Your task to perform on an android device: Open Maps and search for coffee Image 0: 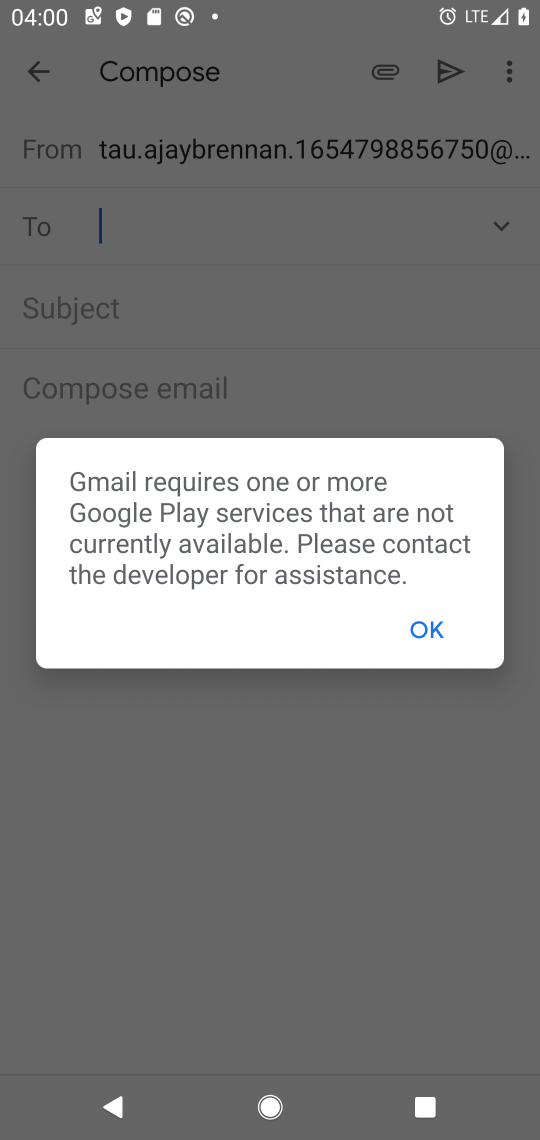
Step 0: press back button
Your task to perform on an android device: Open Maps and search for coffee Image 1: 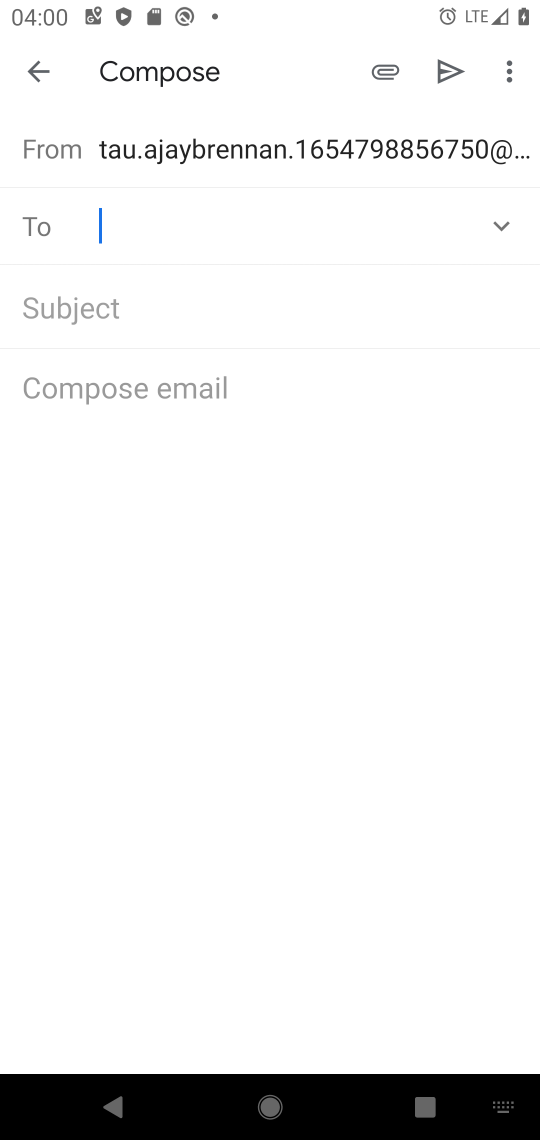
Step 1: press home button
Your task to perform on an android device: Open Maps and search for coffee Image 2: 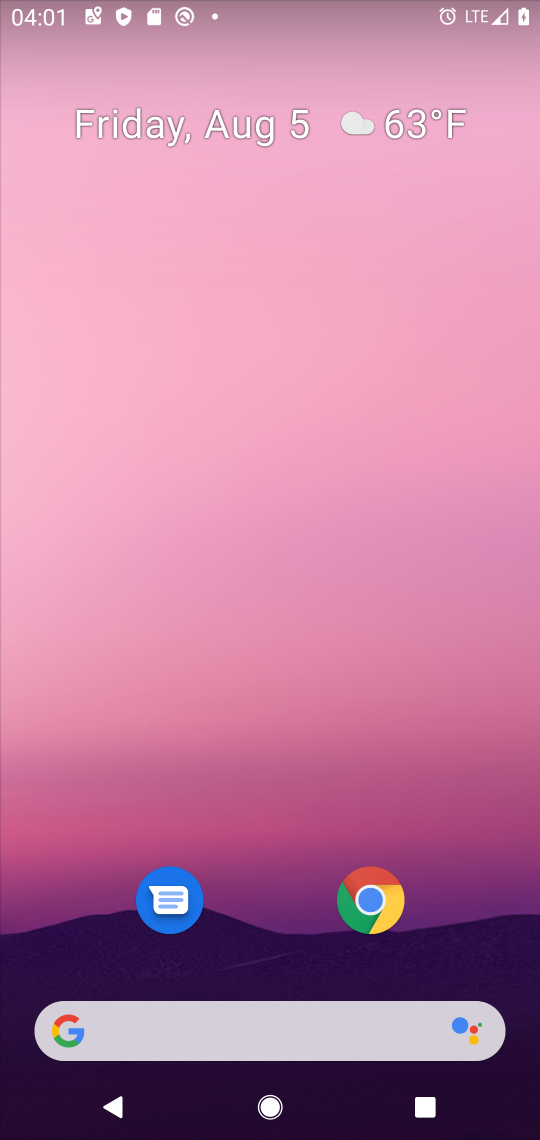
Step 2: drag from (142, 817) to (249, 1)
Your task to perform on an android device: Open Maps and search for coffee Image 3: 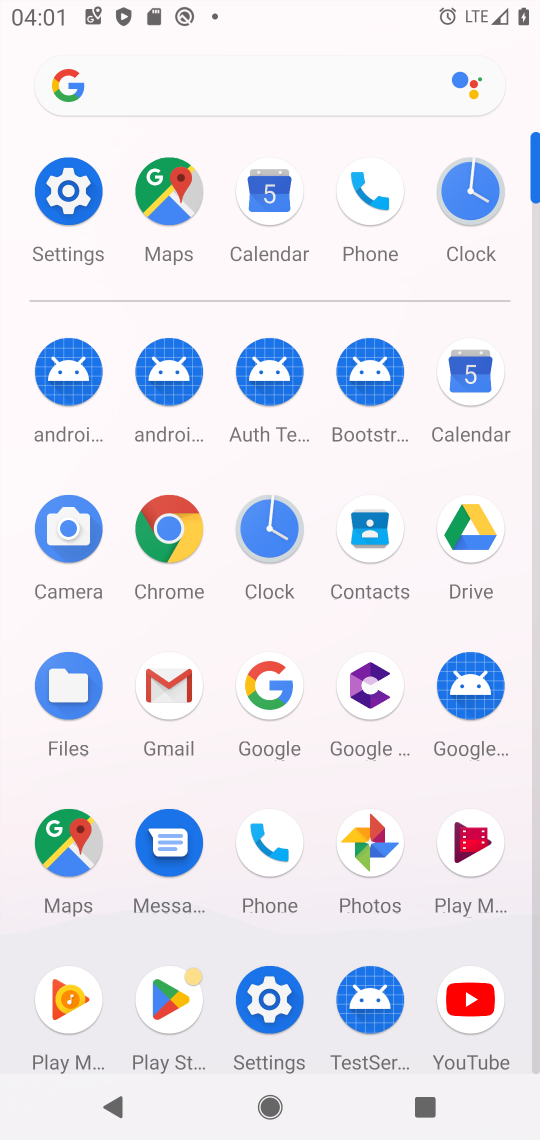
Step 3: click (159, 212)
Your task to perform on an android device: Open Maps and search for coffee Image 4: 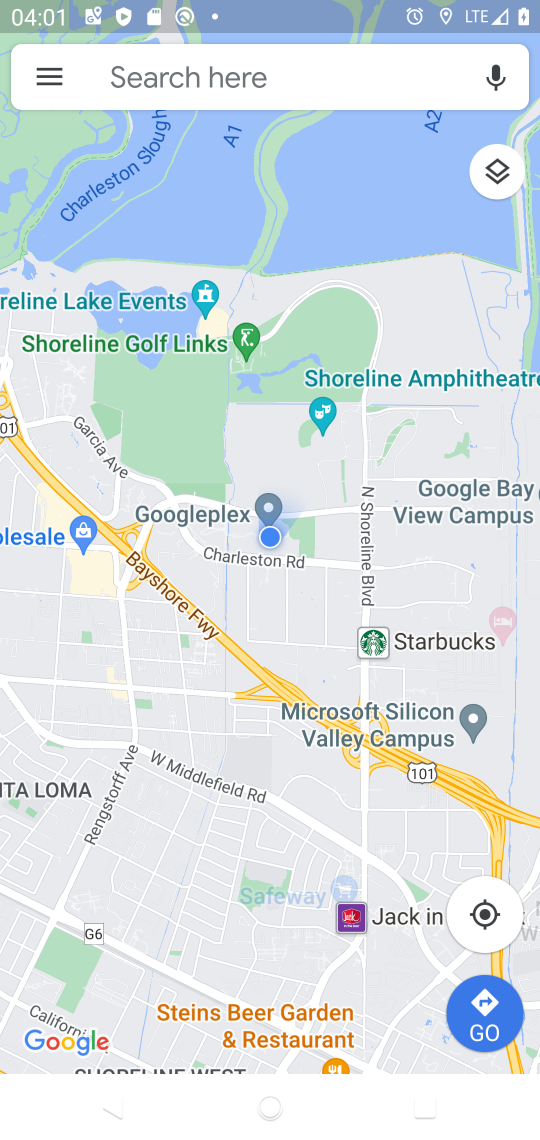
Step 4: click (215, 62)
Your task to perform on an android device: Open Maps and search for coffee Image 5: 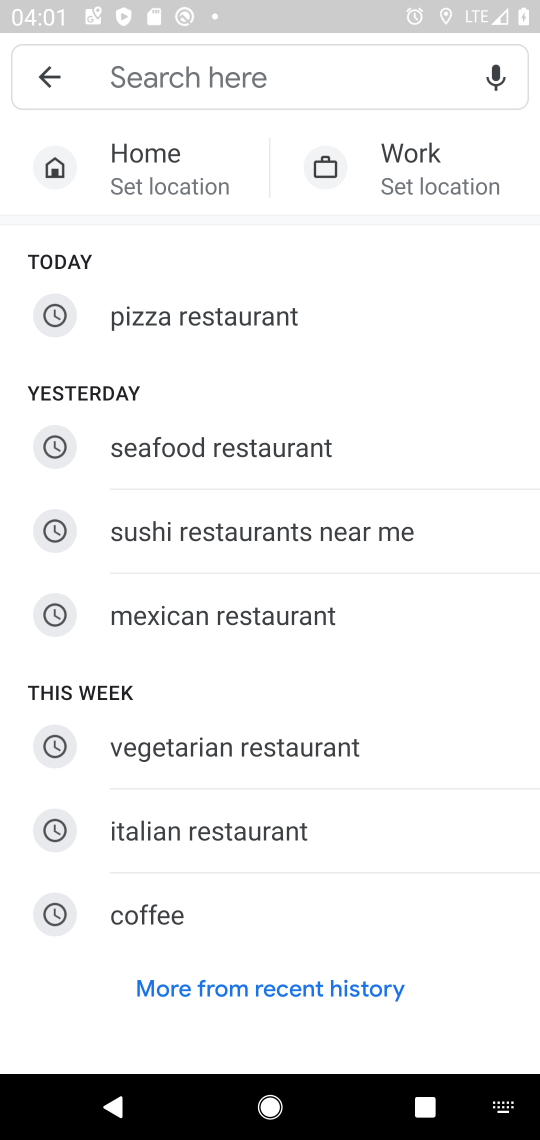
Step 5: click (169, 906)
Your task to perform on an android device: Open Maps and search for coffee Image 6: 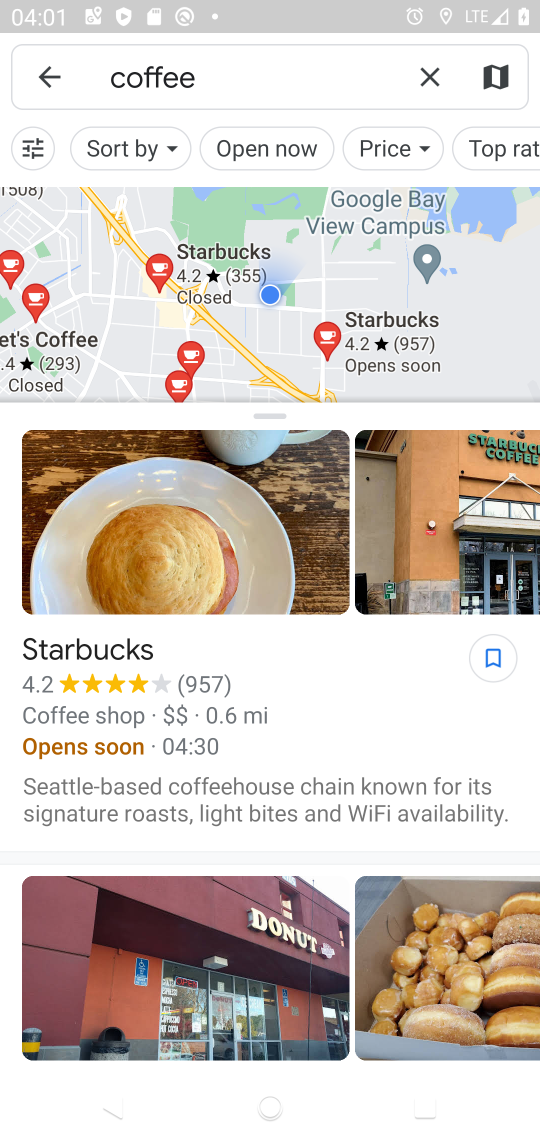
Step 6: task complete